Your task to perform on an android device: uninstall "Google Play services" Image 0: 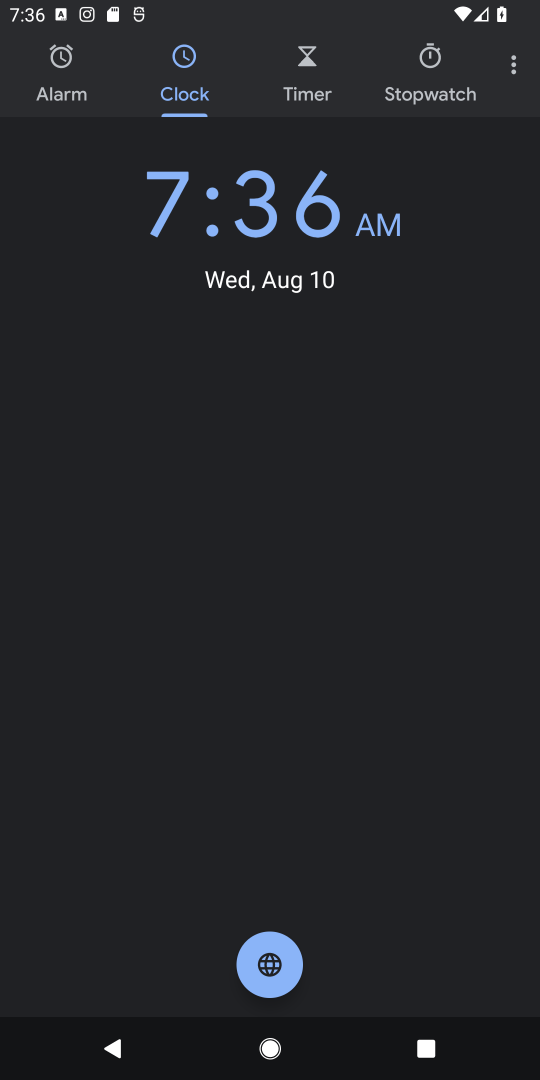
Step 0: press home button
Your task to perform on an android device: uninstall "Google Play services" Image 1: 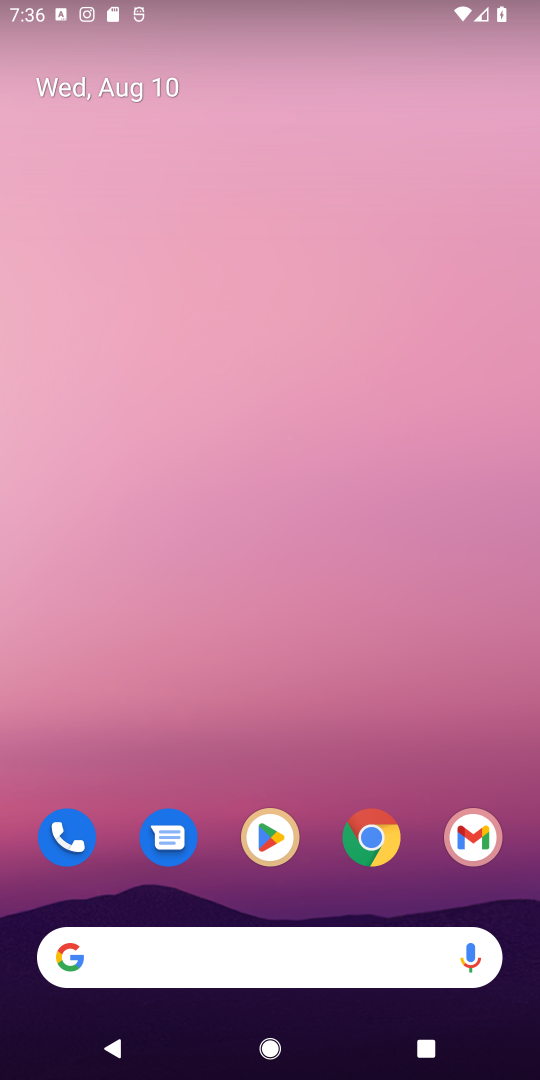
Step 1: click (271, 833)
Your task to perform on an android device: uninstall "Google Play services" Image 2: 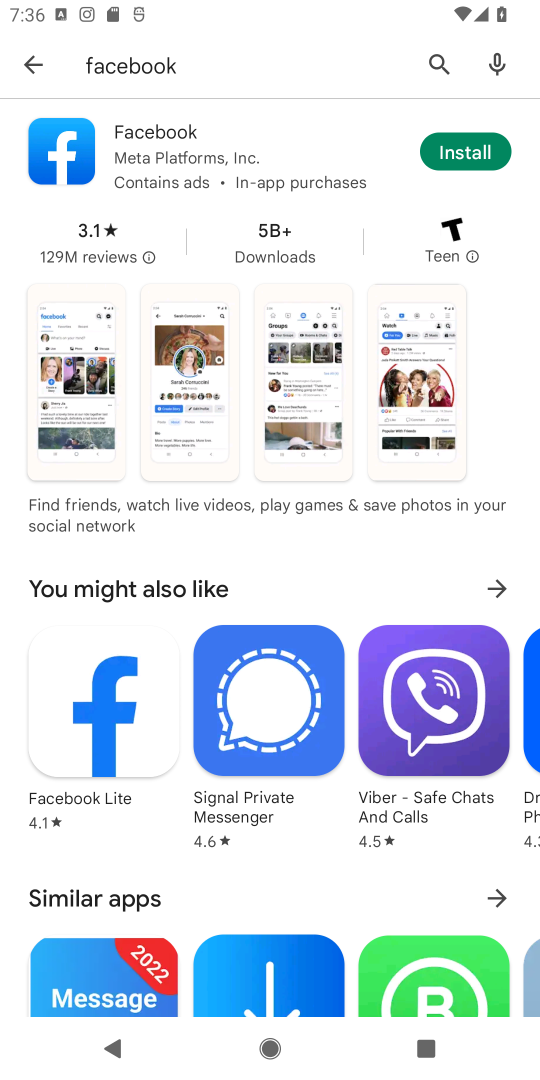
Step 2: click (440, 60)
Your task to perform on an android device: uninstall "Google Play services" Image 3: 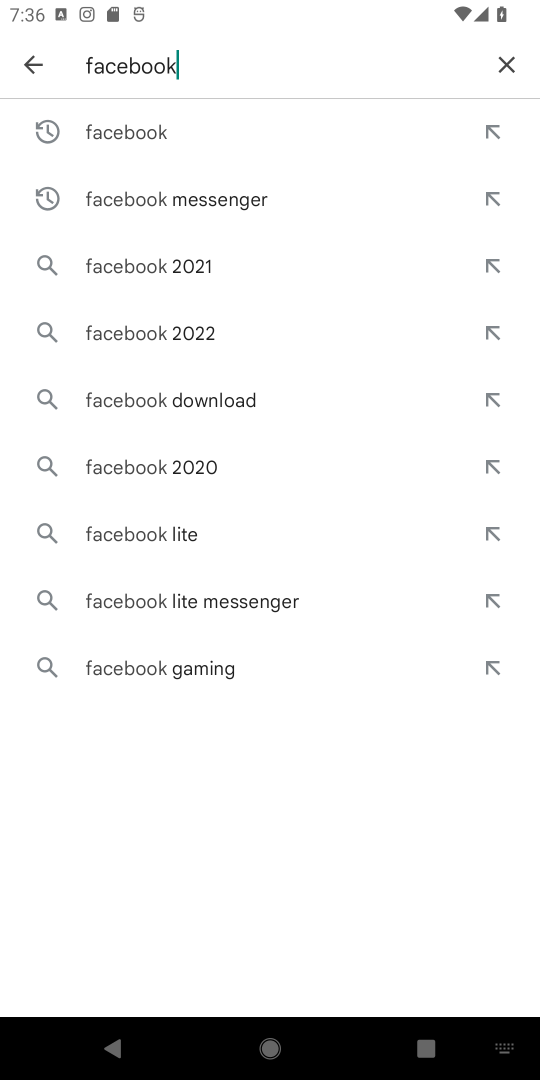
Step 3: click (510, 63)
Your task to perform on an android device: uninstall "Google Play services" Image 4: 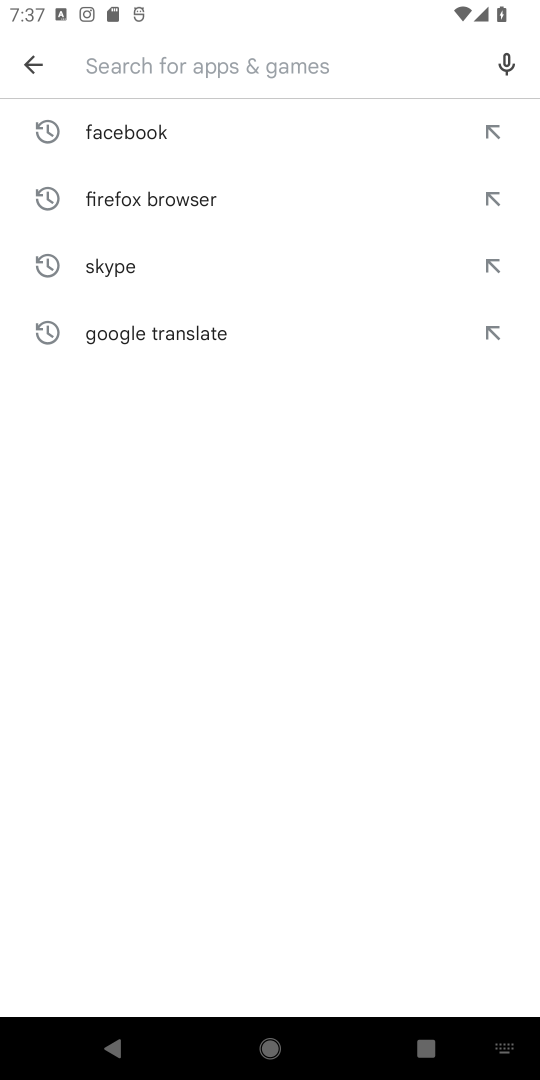
Step 4: type "Google Play services"
Your task to perform on an android device: uninstall "Google Play services" Image 5: 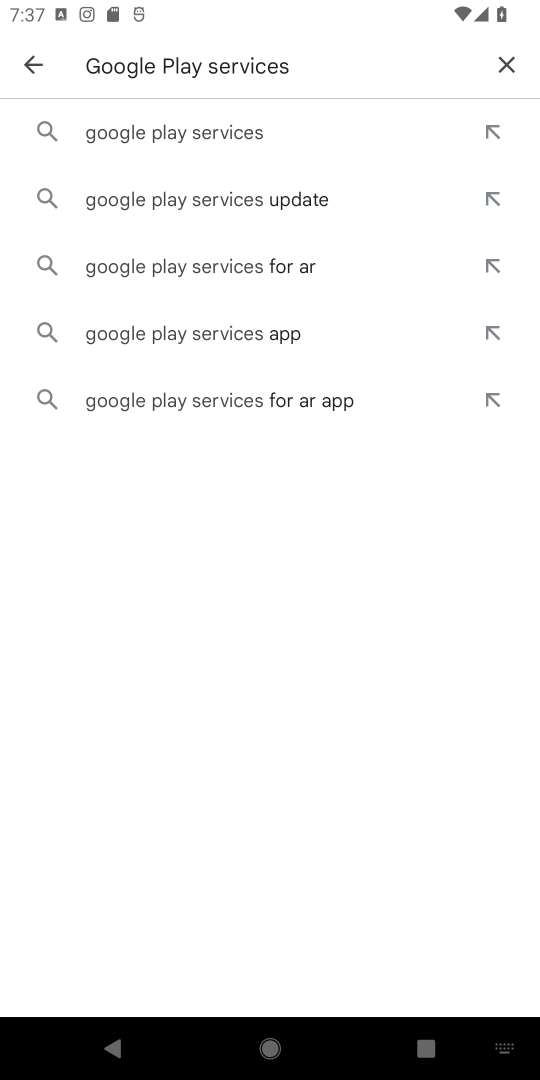
Step 5: click (234, 125)
Your task to perform on an android device: uninstall "Google Play services" Image 6: 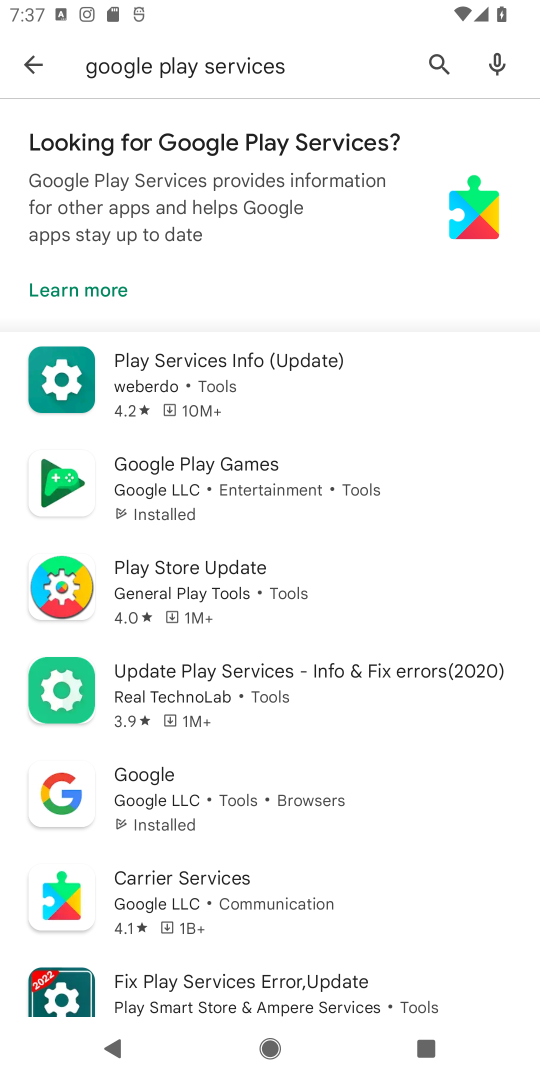
Step 6: task complete